Your task to perform on an android device: What's on my calendar today? Image 0: 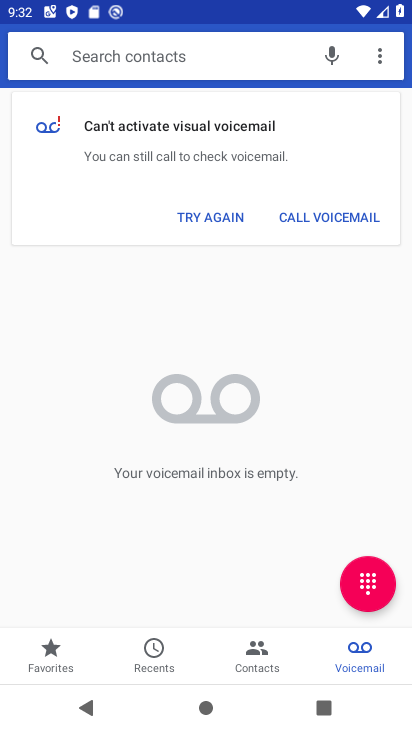
Step 0: press home button
Your task to perform on an android device: What's on my calendar today? Image 1: 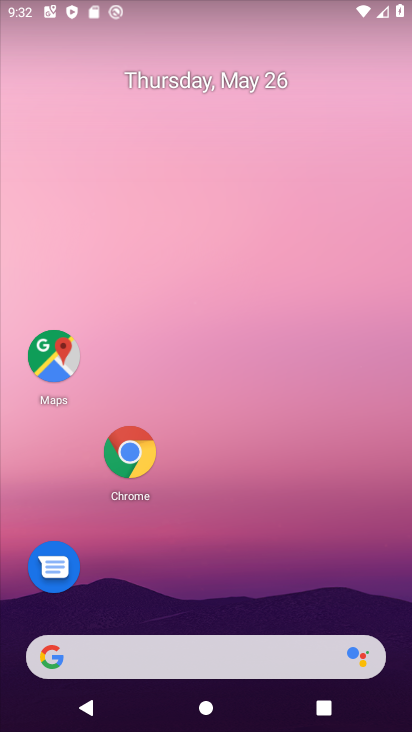
Step 1: drag from (141, 657) to (282, 287)
Your task to perform on an android device: What's on my calendar today? Image 2: 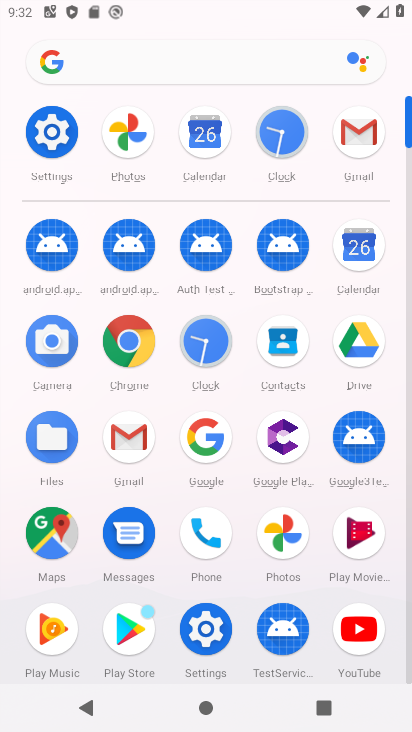
Step 2: click (360, 255)
Your task to perform on an android device: What's on my calendar today? Image 3: 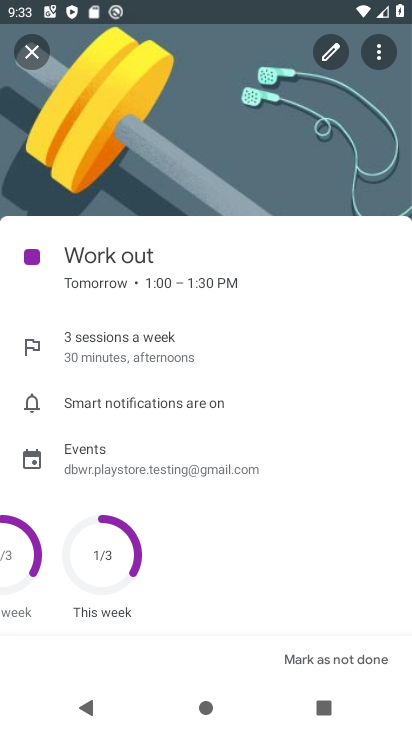
Step 3: click (32, 47)
Your task to perform on an android device: What's on my calendar today? Image 4: 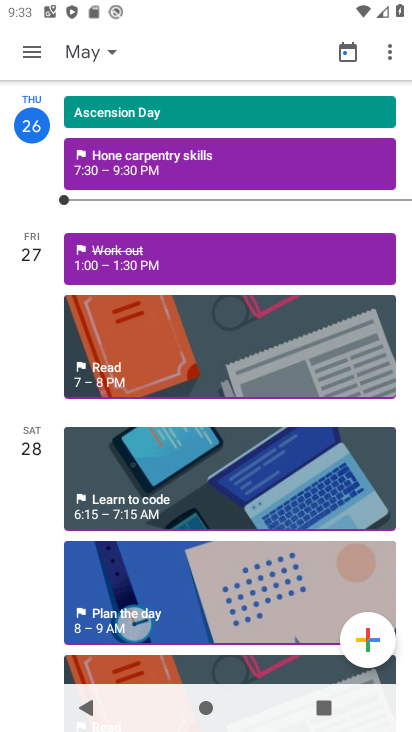
Step 4: click (82, 51)
Your task to perform on an android device: What's on my calendar today? Image 5: 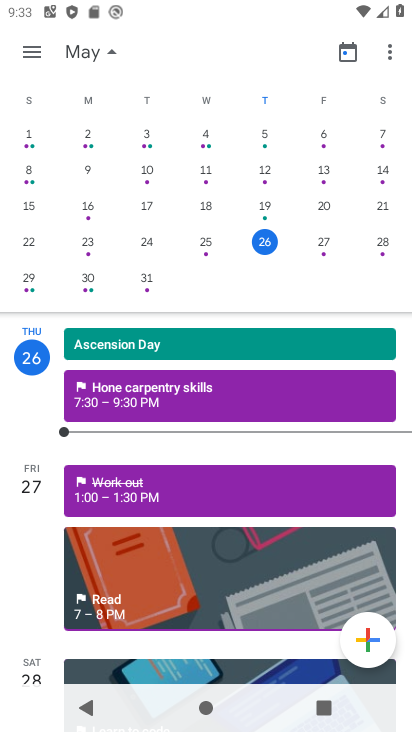
Step 5: click (262, 240)
Your task to perform on an android device: What's on my calendar today? Image 6: 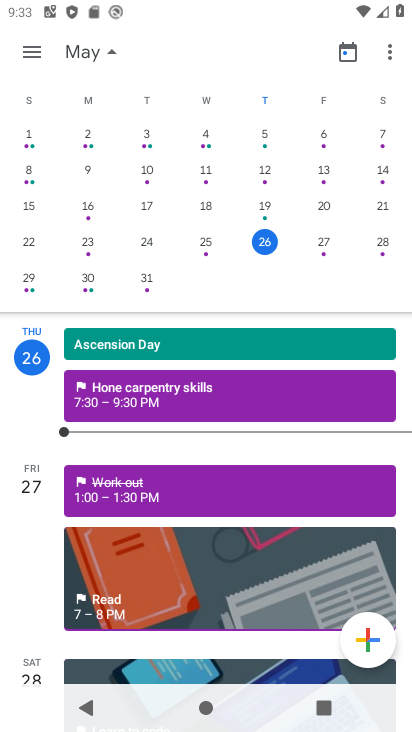
Step 6: click (36, 51)
Your task to perform on an android device: What's on my calendar today? Image 7: 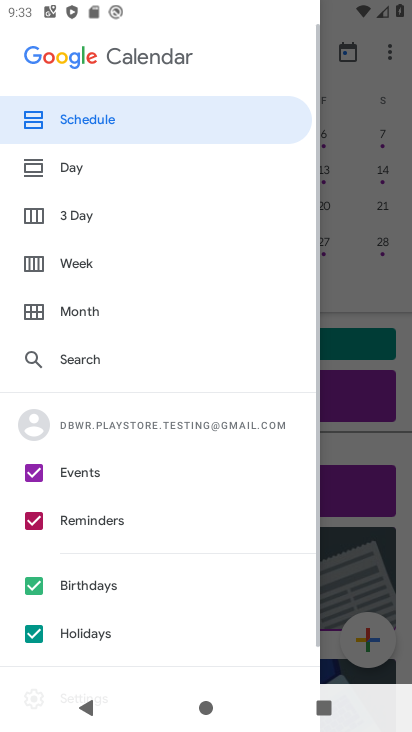
Step 7: click (115, 112)
Your task to perform on an android device: What's on my calendar today? Image 8: 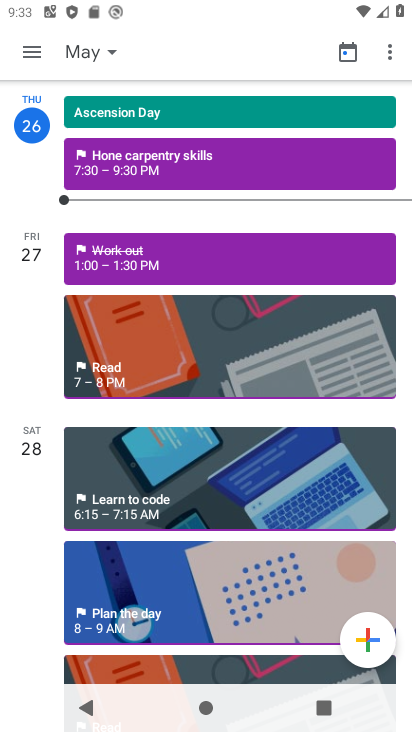
Step 8: click (175, 178)
Your task to perform on an android device: What's on my calendar today? Image 9: 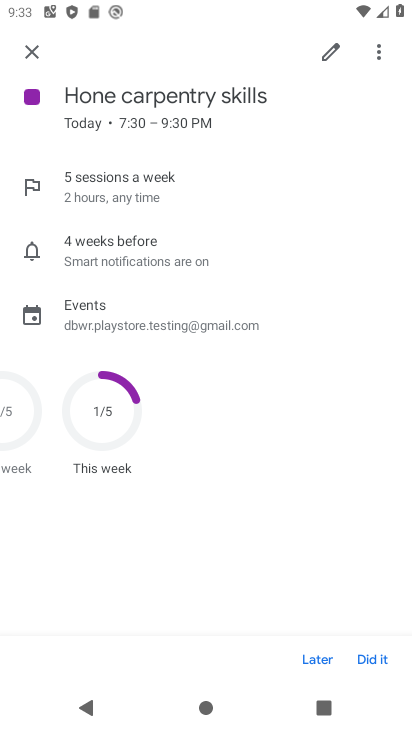
Step 9: task complete